Your task to perform on an android device: Open Chrome and go to settings Image 0: 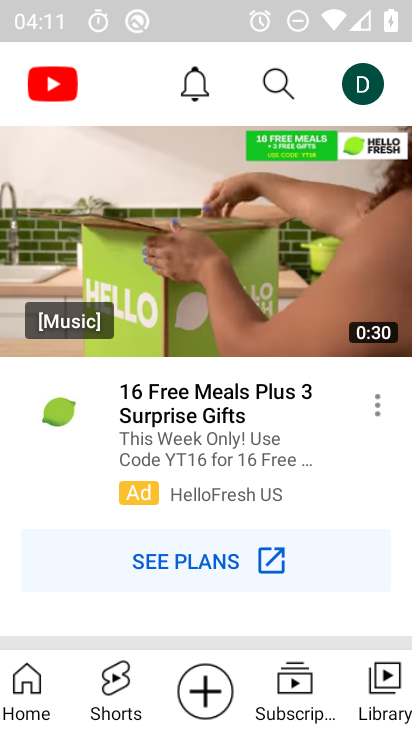
Step 0: press home button
Your task to perform on an android device: Open Chrome and go to settings Image 1: 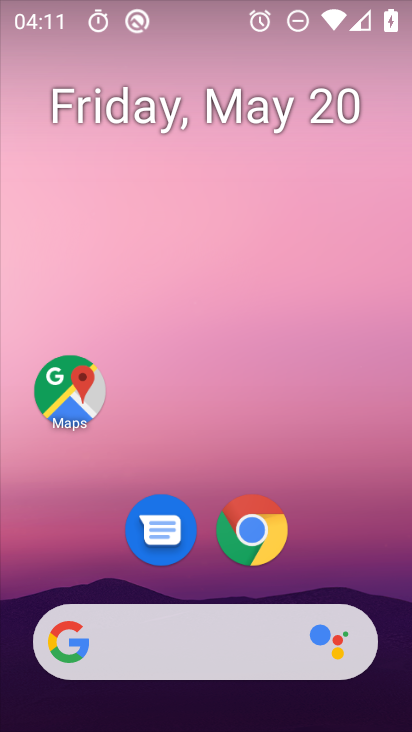
Step 1: click (268, 529)
Your task to perform on an android device: Open Chrome and go to settings Image 2: 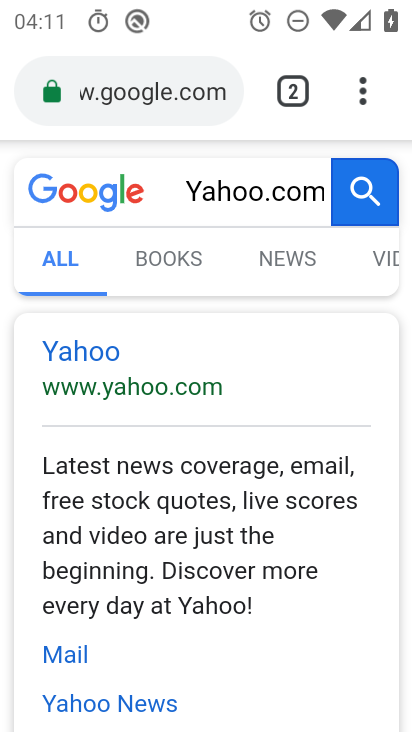
Step 2: click (358, 91)
Your task to perform on an android device: Open Chrome and go to settings Image 3: 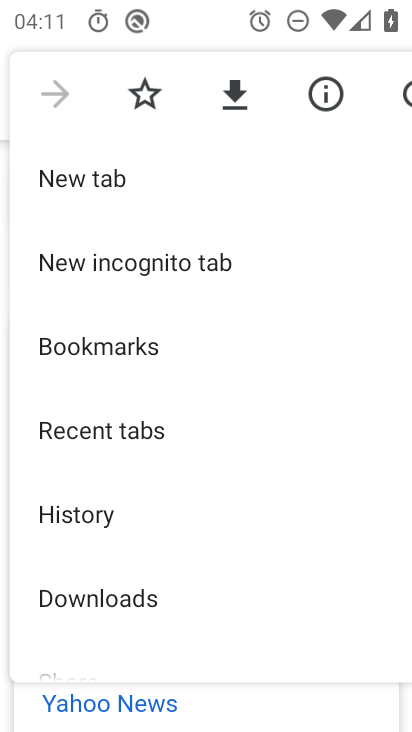
Step 3: drag from (223, 640) to (210, 255)
Your task to perform on an android device: Open Chrome and go to settings Image 4: 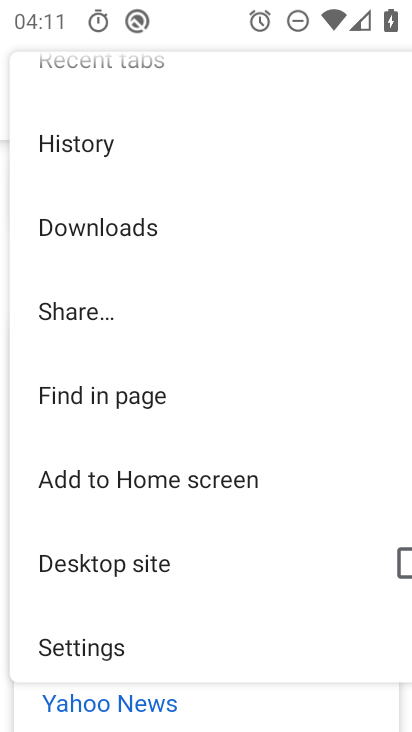
Step 4: click (97, 646)
Your task to perform on an android device: Open Chrome and go to settings Image 5: 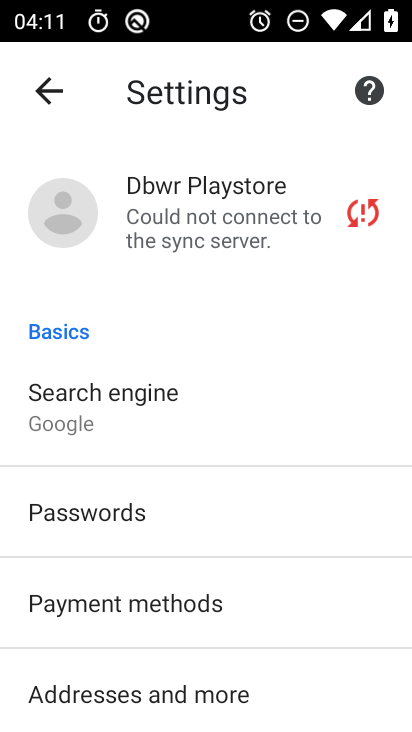
Step 5: task complete